Your task to perform on an android device: remove spam from my inbox in the gmail app Image 0: 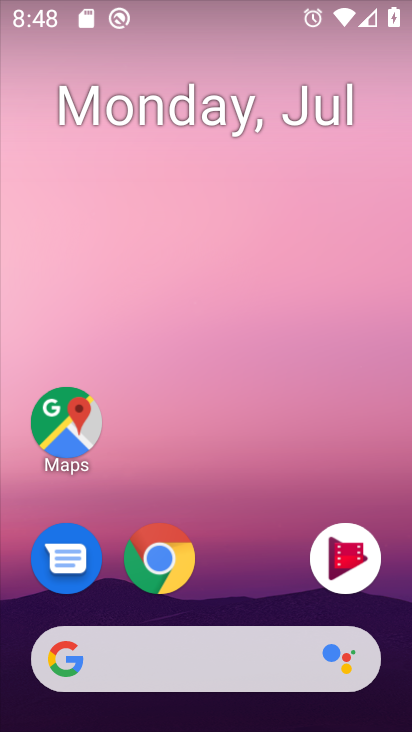
Step 0: drag from (243, 588) to (294, 58)
Your task to perform on an android device: remove spam from my inbox in the gmail app Image 1: 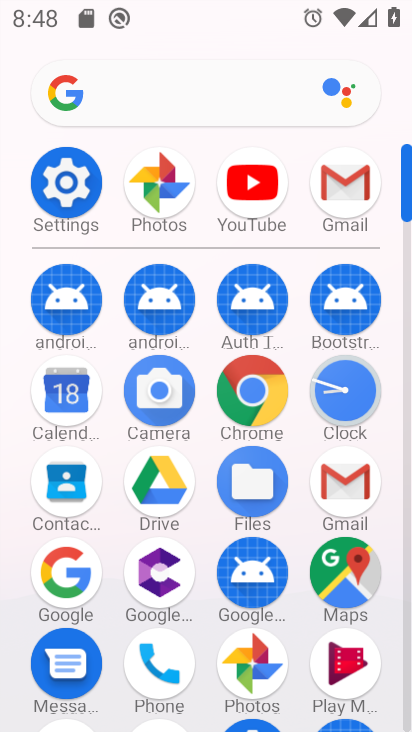
Step 1: click (353, 482)
Your task to perform on an android device: remove spam from my inbox in the gmail app Image 2: 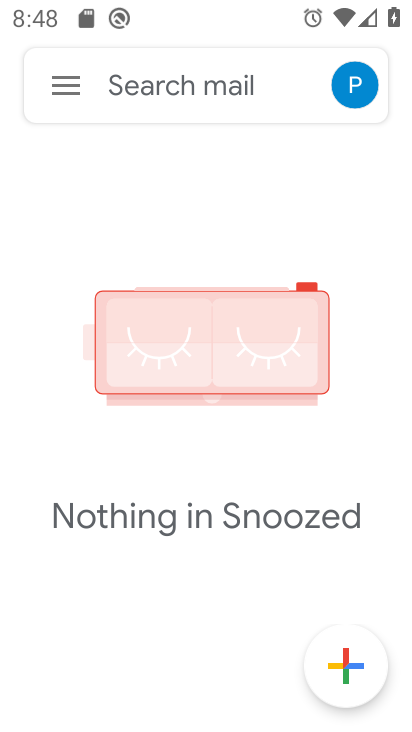
Step 2: click (69, 78)
Your task to perform on an android device: remove spam from my inbox in the gmail app Image 3: 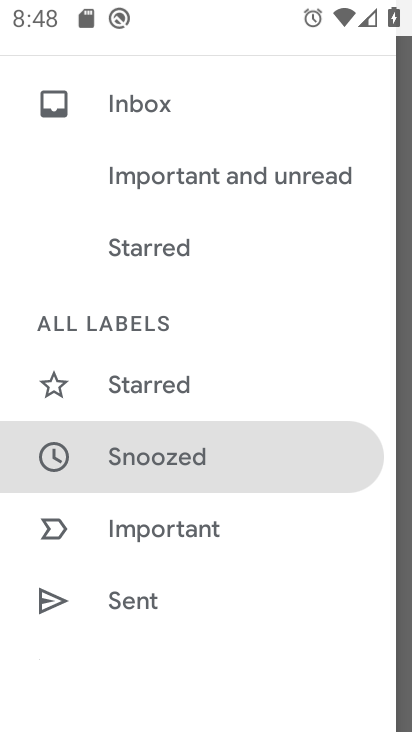
Step 3: drag from (304, 617) to (325, 518)
Your task to perform on an android device: remove spam from my inbox in the gmail app Image 4: 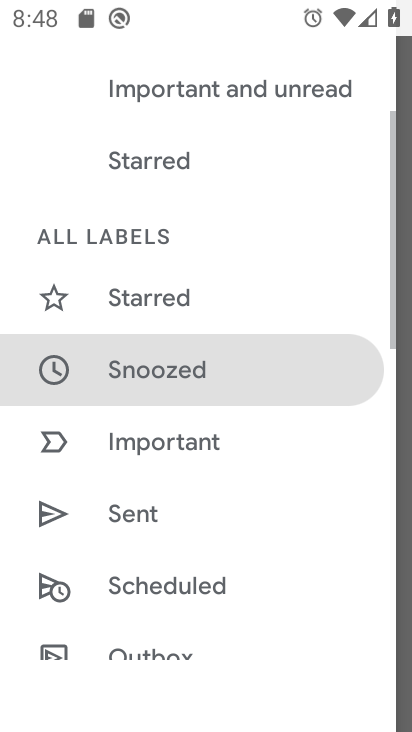
Step 4: drag from (327, 560) to (332, 436)
Your task to perform on an android device: remove spam from my inbox in the gmail app Image 5: 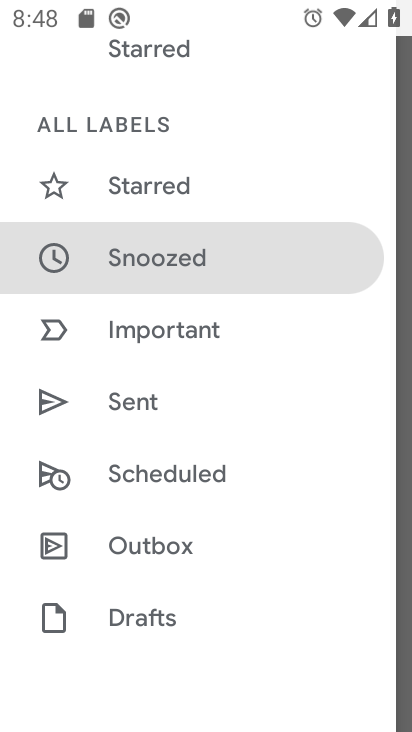
Step 5: drag from (306, 534) to (306, 443)
Your task to perform on an android device: remove spam from my inbox in the gmail app Image 6: 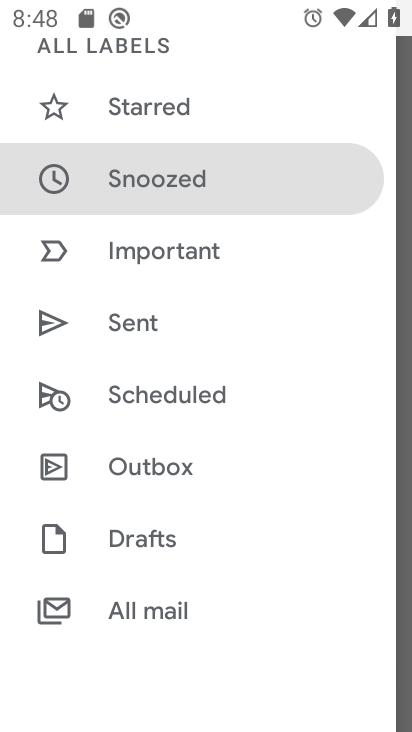
Step 6: drag from (306, 547) to (303, 444)
Your task to perform on an android device: remove spam from my inbox in the gmail app Image 7: 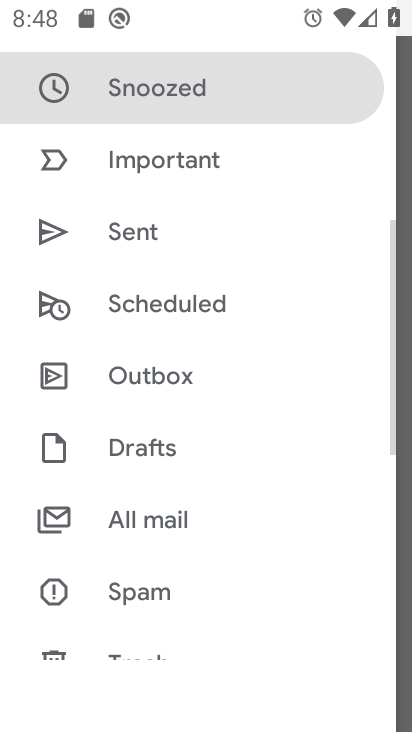
Step 7: drag from (299, 587) to (300, 442)
Your task to perform on an android device: remove spam from my inbox in the gmail app Image 8: 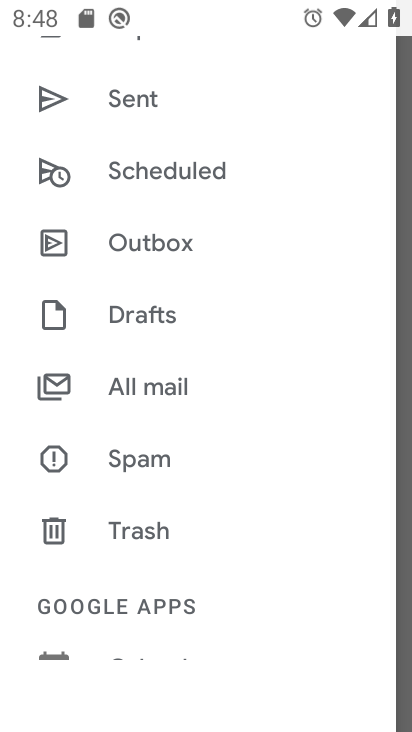
Step 8: drag from (284, 553) to (292, 438)
Your task to perform on an android device: remove spam from my inbox in the gmail app Image 9: 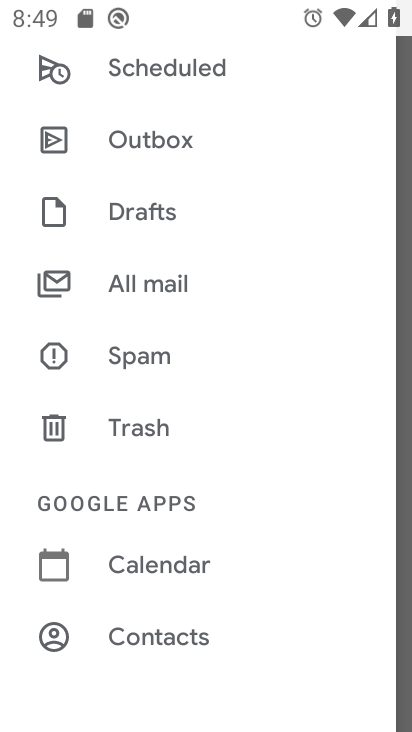
Step 9: click (190, 360)
Your task to perform on an android device: remove spam from my inbox in the gmail app Image 10: 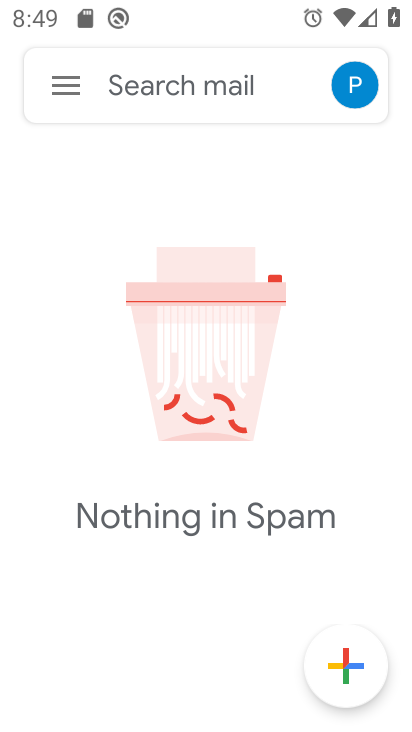
Step 10: task complete